Your task to perform on an android device: Open CNN.com Image 0: 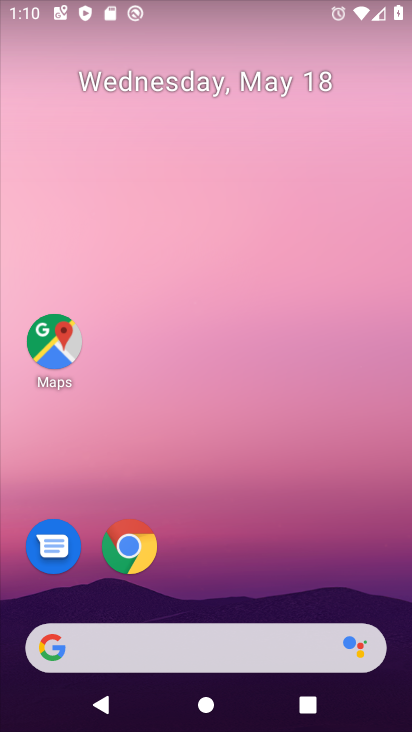
Step 0: drag from (226, 606) to (221, 74)
Your task to perform on an android device: Open CNN.com Image 1: 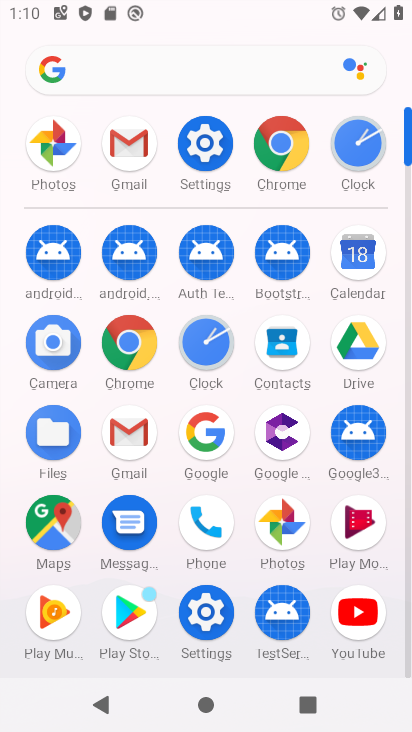
Step 1: click (280, 179)
Your task to perform on an android device: Open CNN.com Image 2: 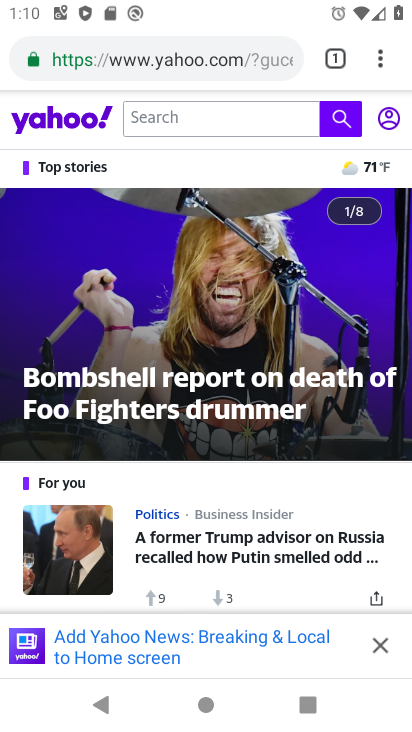
Step 2: click (261, 78)
Your task to perform on an android device: Open CNN.com Image 3: 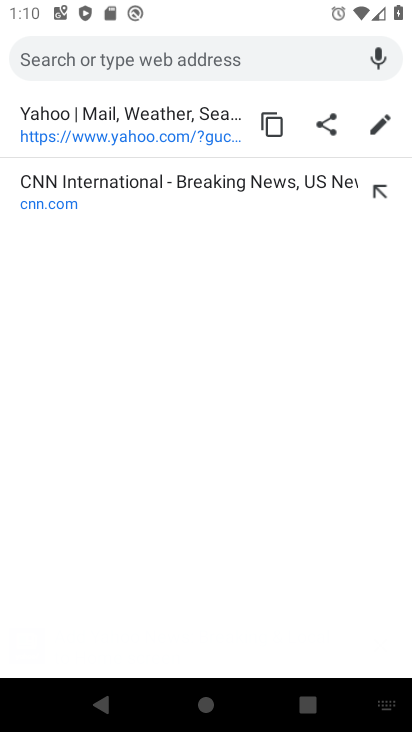
Step 3: click (208, 192)
Your task to perform on an android device: Open CNN.com Image 4: 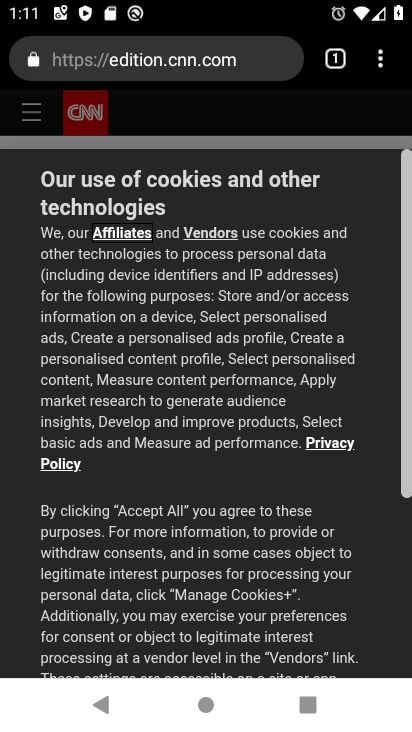
Step 4: task complete